Your task to perform on an android device: set the stopwatch Image 0: 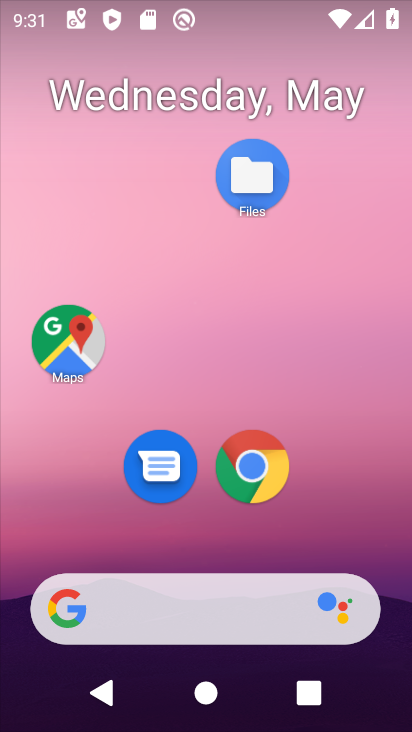
Step 0: drag from (316, 606) to (154, 51)
Your task to perform on an android device: set the stopwatch Image 1: 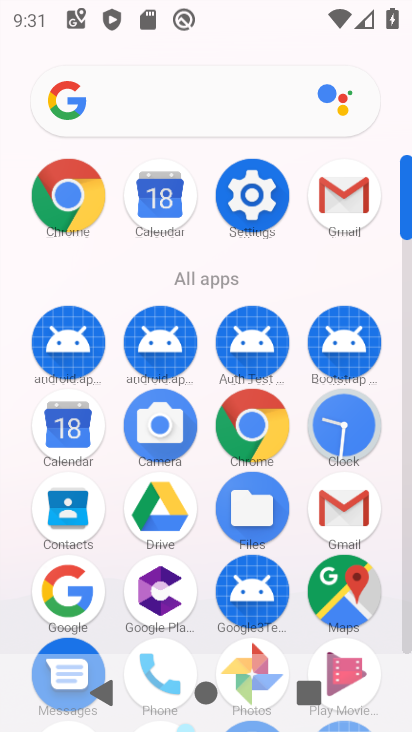
Step 1: click (352, 428)
Your task to perform on an android device: set the stopwatch Image 2: 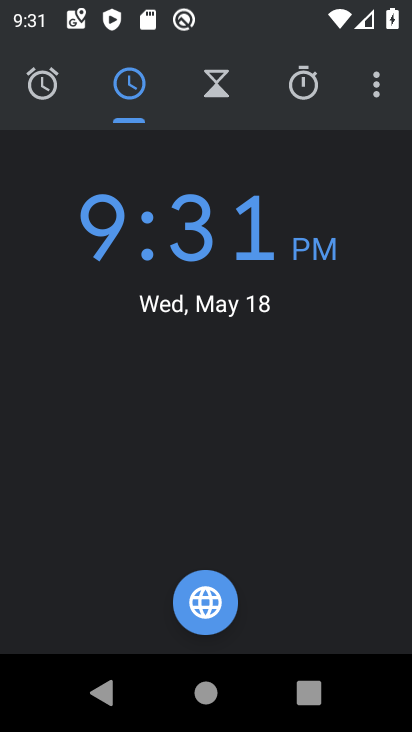
Step 2: click (303, 91)
Your task to perform on an android device: set the stopwatch Image 3: 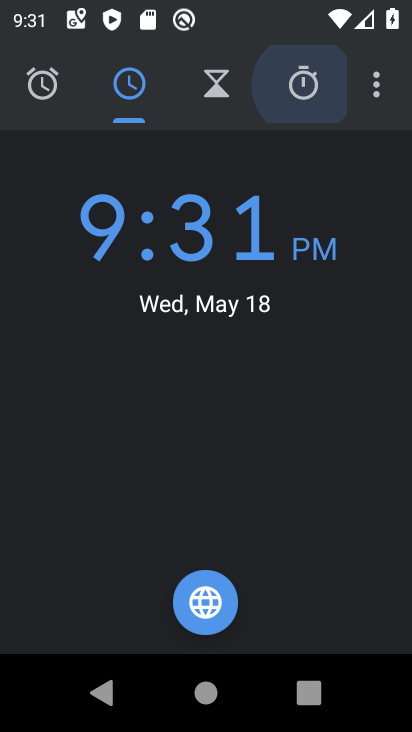
Step 3: click (303, 91)
Your task to perform on an android device: set the stopwatch Image 4: 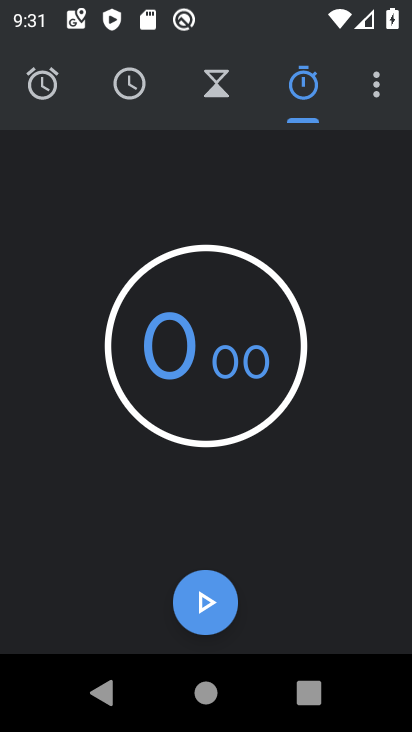
Step 4: click (194, 598)
Your task to perform on an android device: set the stopwatch Image 5: 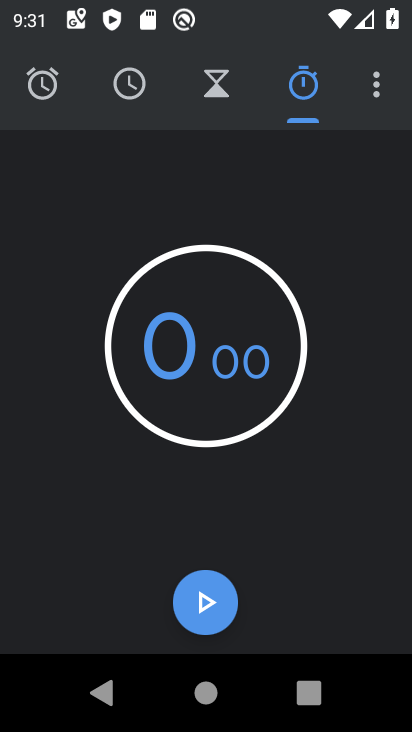
Step 5: click (195, 599)
Your task to perform on an android device: set the stopwatch Image 6: 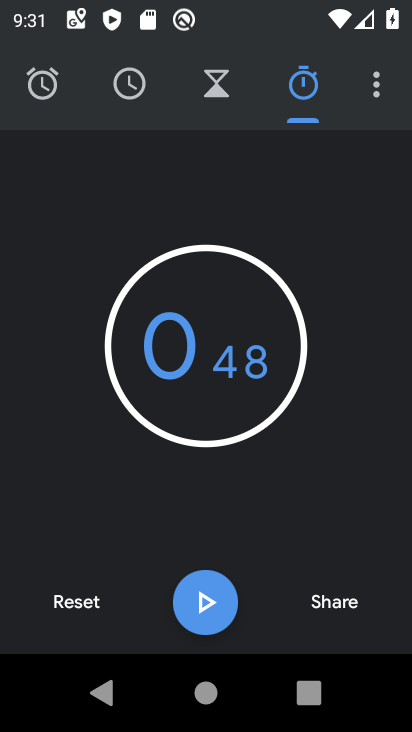
Step 6: click (204, 598)
Your task to perform on an android device: set the stopwatch Image 7: 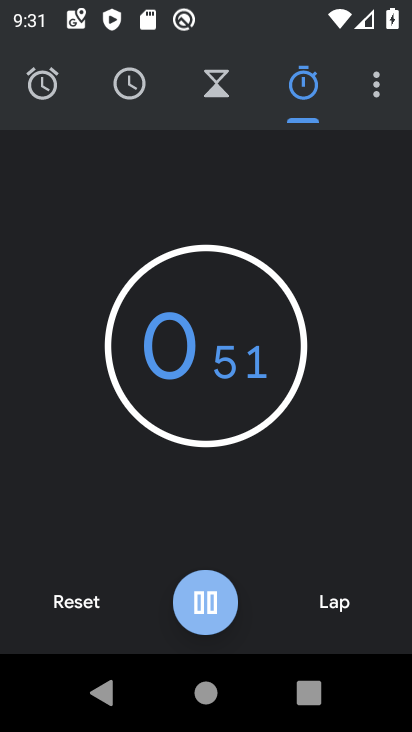
Step 7: click (206, 596)
Your task to perform on an android device: set the stopwatch Image 8: 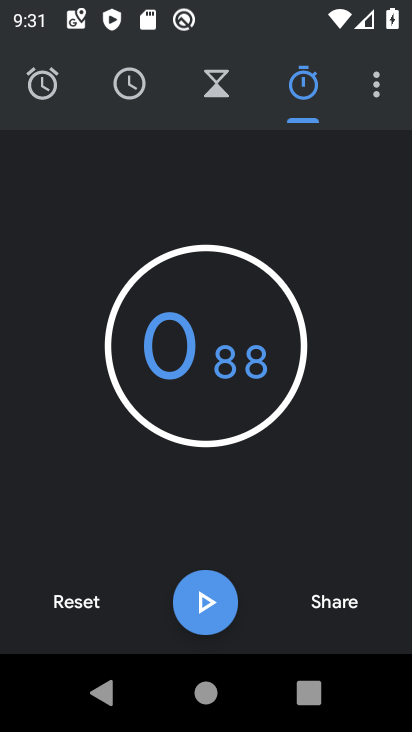
Step 8: click (204, 612)
Your task to perform on an android device: set the stopwatch Image 9: 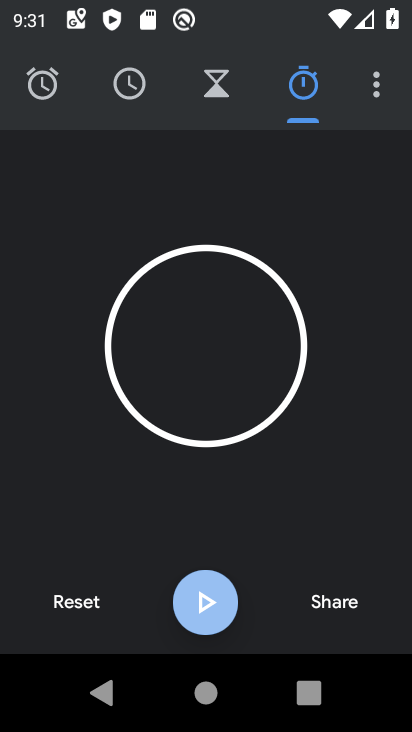
Step 9: click (204, 609)
Your task to perform on an android device: set the stopwatch Image 10: 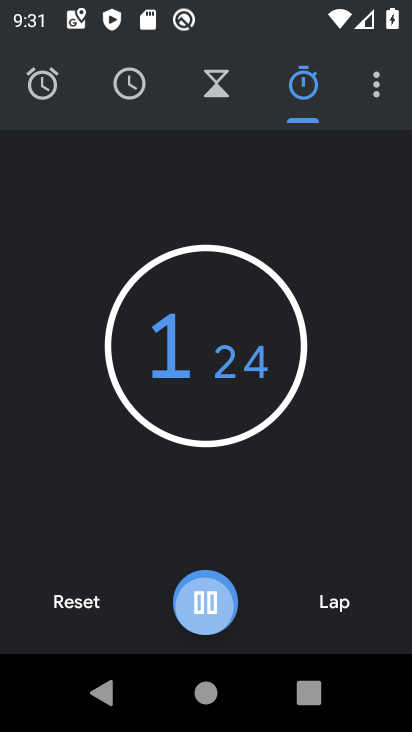
Step 10: click (205, 607)
Your task to perform on an android device: set the stopwatch Image 11: 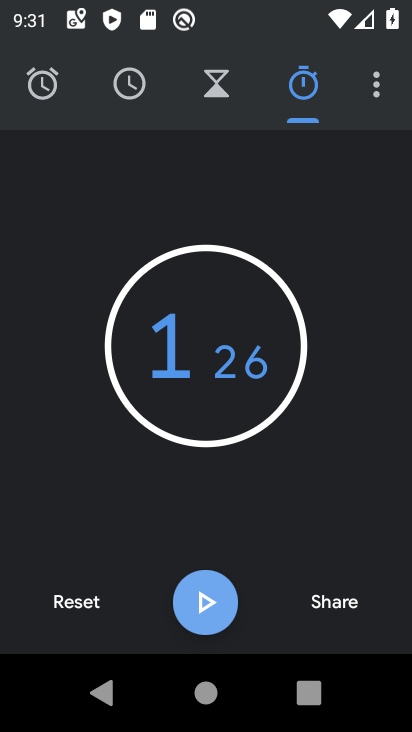
Step 11: click (207, 606)
Your task to perform on an android device: set the stopwatch Image 12: 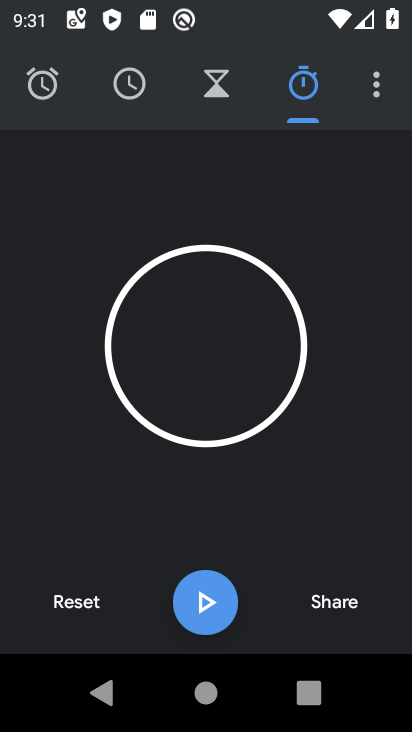
Step 12: click (200, 595)
Your task to perform on an android device: set the stopwatch Image 13: 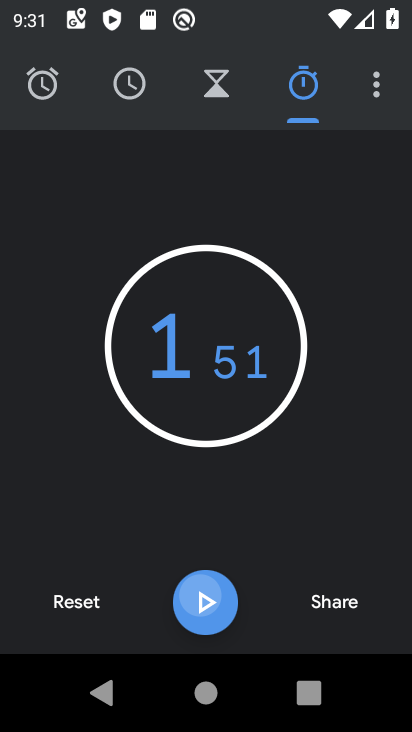
Step 13: click (201, 597)
Your task to perform on an android device: set the stopwatch Image 14: 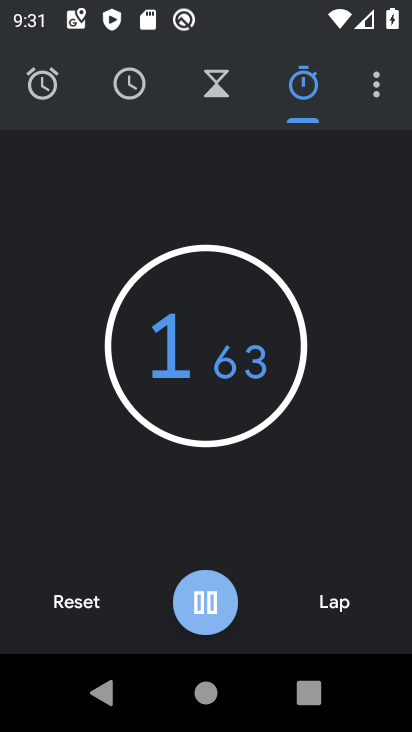
Step 14: click (205, 599)
Your task to perform on an android device: set the stopwatch Image 15: 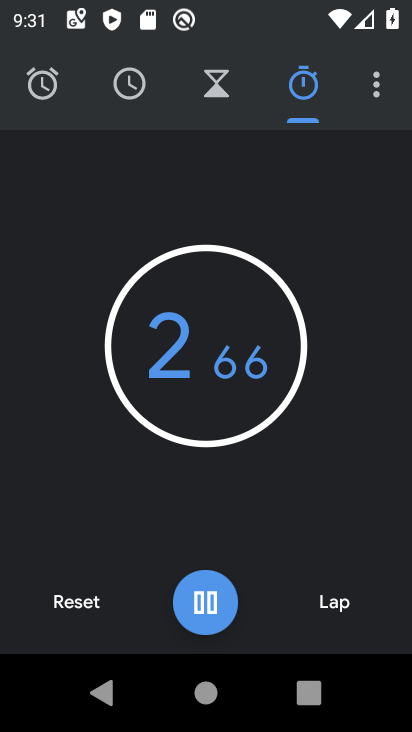
Step 15: click (205, 600)
Your task to perform on an android device: set the stopwatch Image 16: 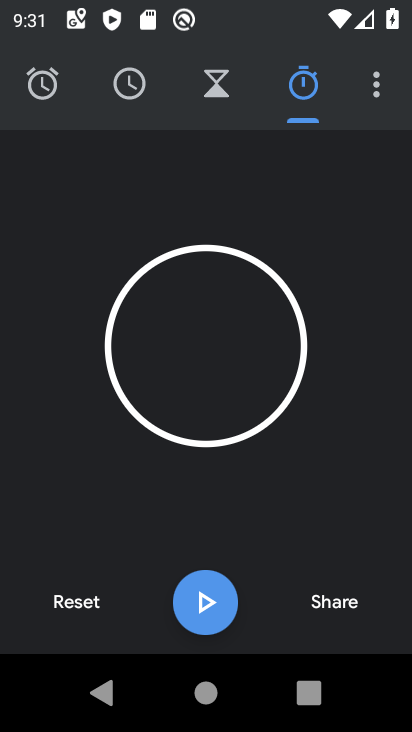
Step 16: task complete